Your task to perform on an android device: turn pop-ups on in chrome Image 0: 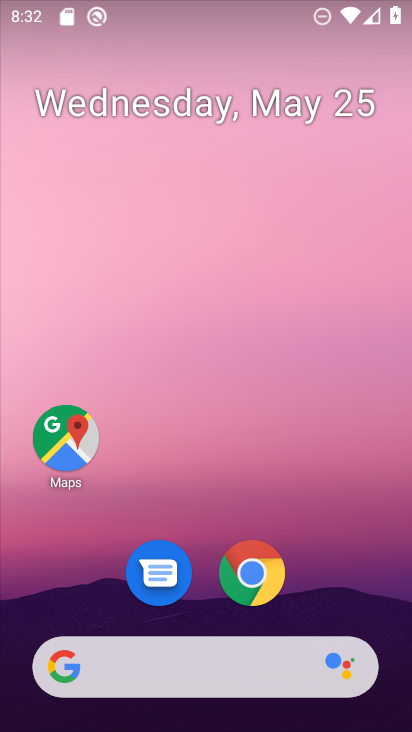
Step 0: click (257, 576)
Your task to perform on an android device: turn pop-ups on in chrome Image 1: 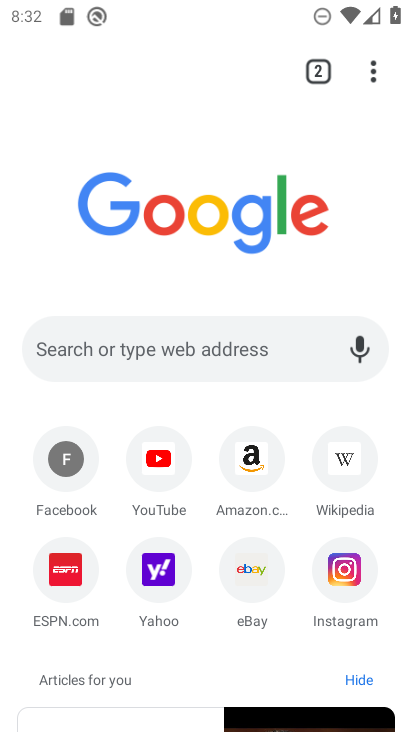
Step 1: click (375, 70)
Your task to perform on an android device: turn pop-ups on in chrome Image 2: 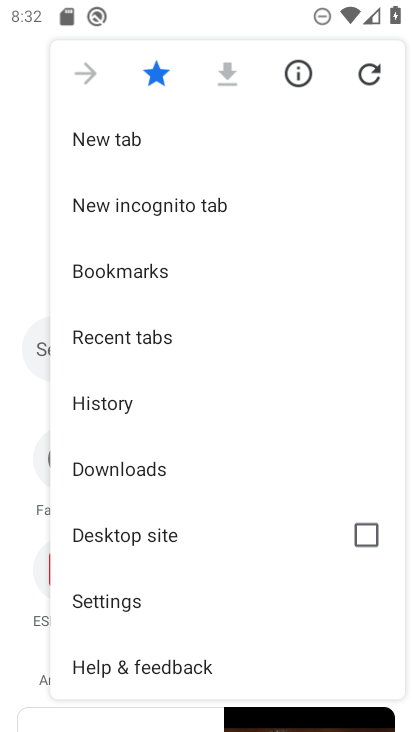
Step 2: click (107, 604)
Your task to perform on an android device: turn pop-ups on in chrome Image 3: 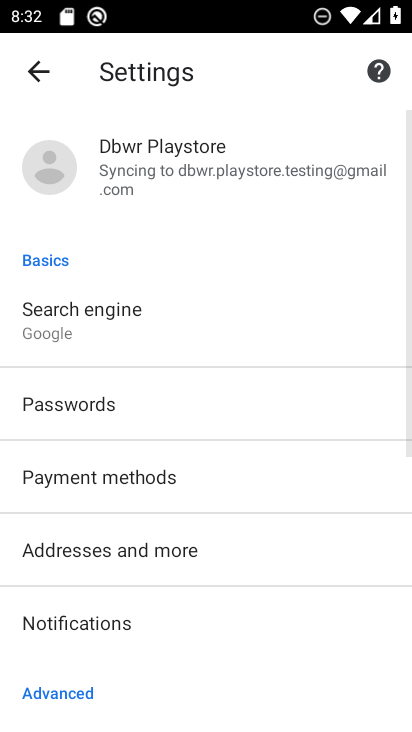
Step 3: drag from (170, 686) to (218, 246)
Your task to perform on an android device: turn pop-ups on in chrome Image 4: 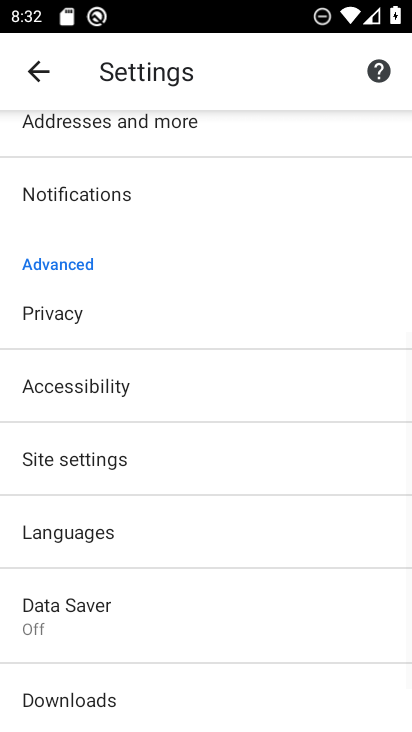
Step 4: click (46, 455)
Your task to perform on an android device: turn pop-ups on in chrome Image 5: 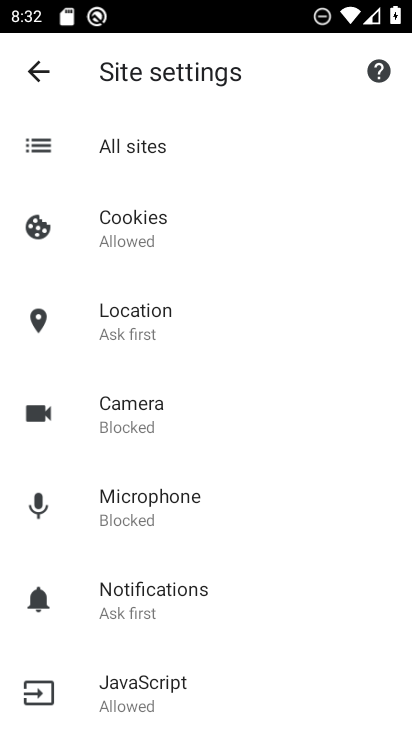
Step 5: drag from (272, 691) to (271, 278)
Your task to perform on an android device: turn pop-ups on in chrome Image 6: 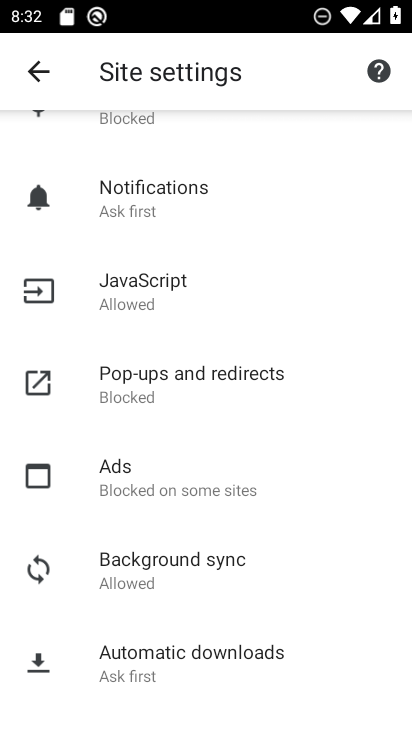
Step 6: click (137, 387)
Your task to perform on an android device: turn pop-ups on in chrome Image 7: 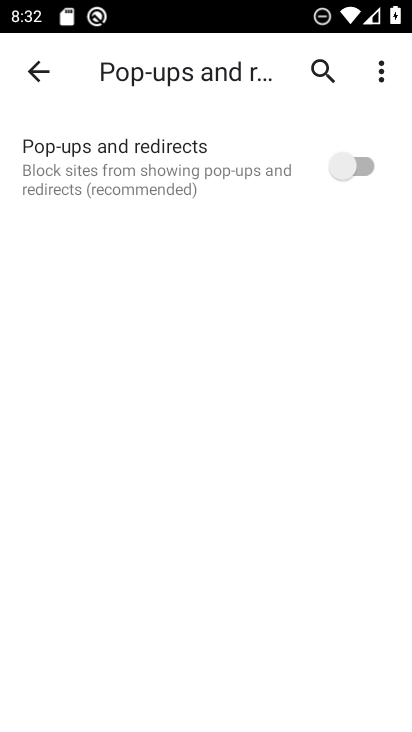
Step 7: click (366, 156)
Your task to perform on an android device: turn pop-ups on in chrome Image 8: 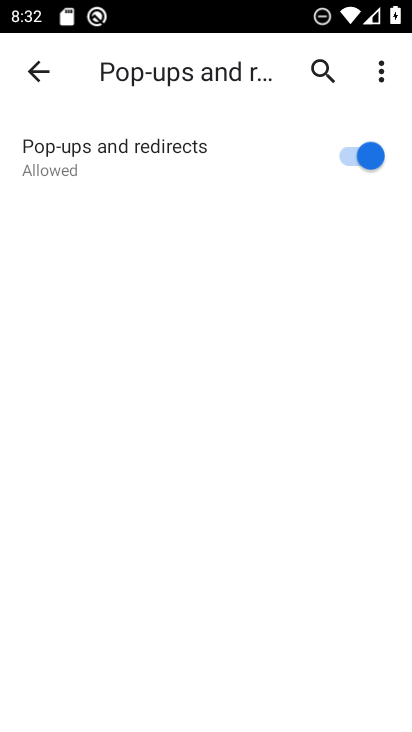
Step 8: task complete